Your task to perform on an android device: toggle notification dots Image 0: 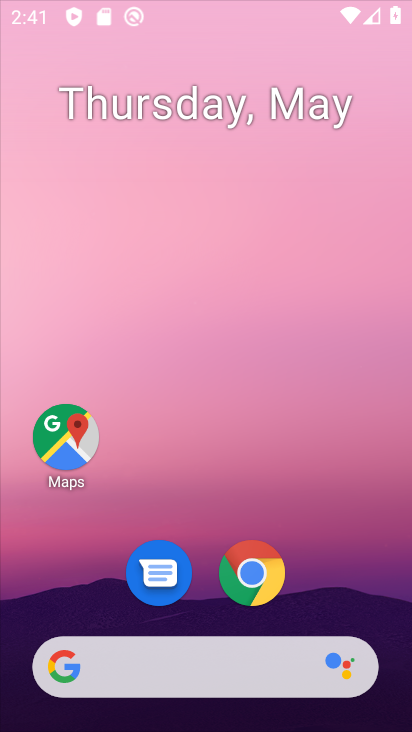
Step 0: click (160, 454)
Your task to perform on an android device: toggle notification dots Image 1: 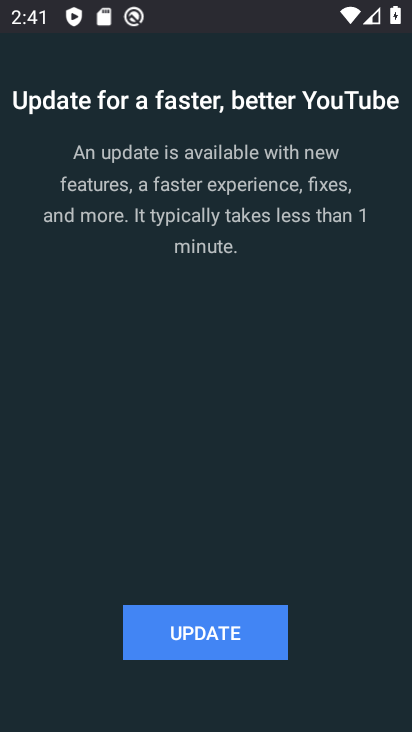
Step 1: press home button
Your task to perform on an android device: toggle notification dots Image 2: 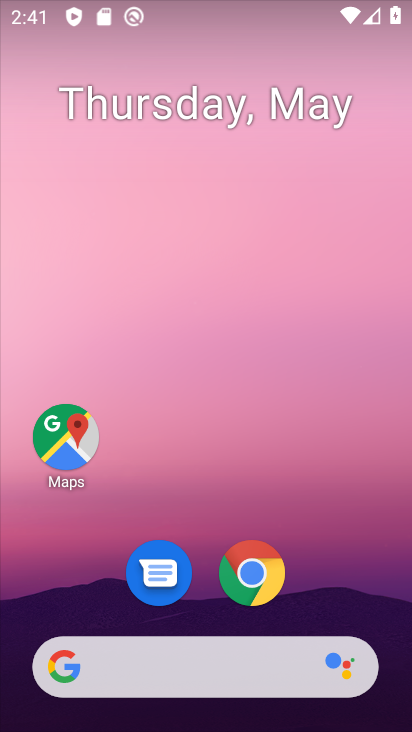
Step 2: drag from (197, 635) to (201, 303)
Your task to perform on an android device: toggle notification dots Image 3: 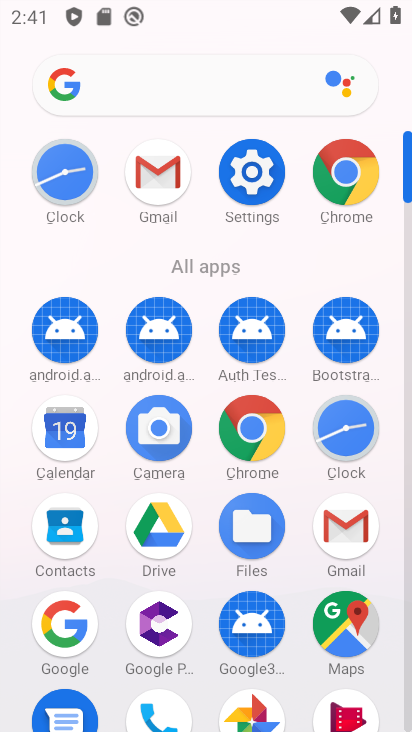
Step 3: click (239, 183)
Your task to perform on an android device: toggle notification dots Image 4: 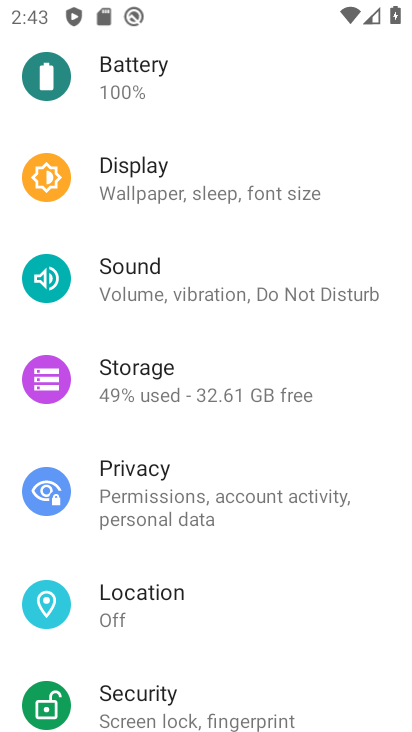
Step 4: drag from (248, 105) to (253, 574)
Your task to perform on an android device: toggle notification dots Image 5: 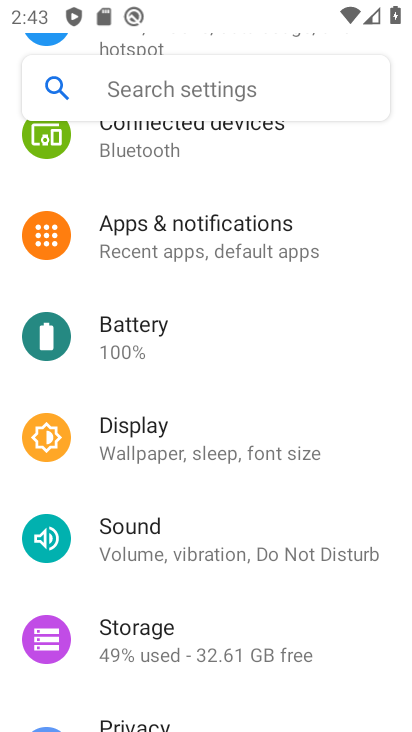
Step 5: click (260, 215)
Your task to perform on an android device: toggle notification dots Image 6: 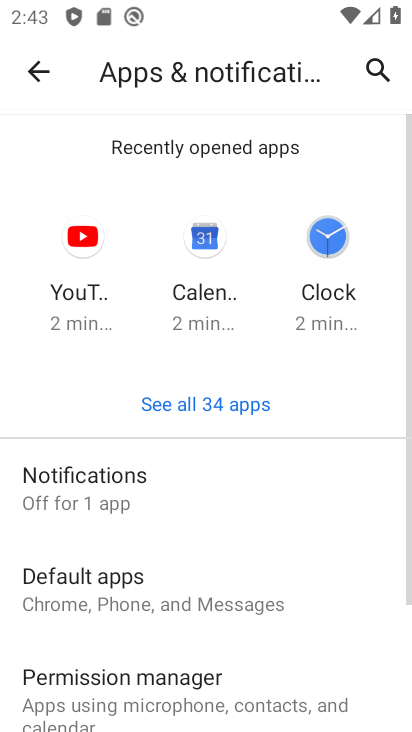
Step 6: click (87, 485)
Your task to perform on an android device: toggle notification dots Image 7: 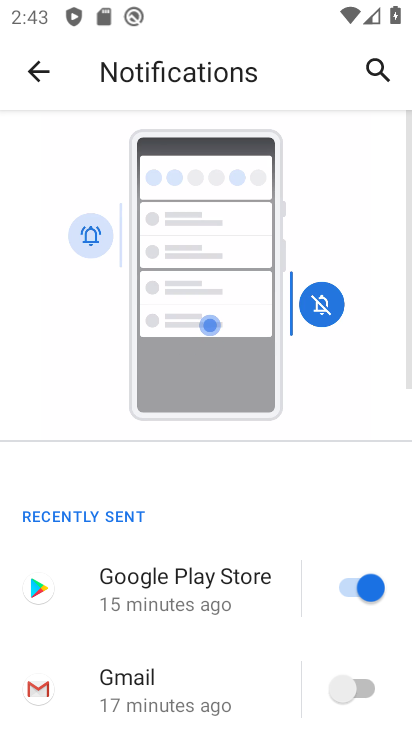
Step 7: drag from (162, 682) to (194, 146)
Your task to perform on an android device: toggle notification dots Image 8: 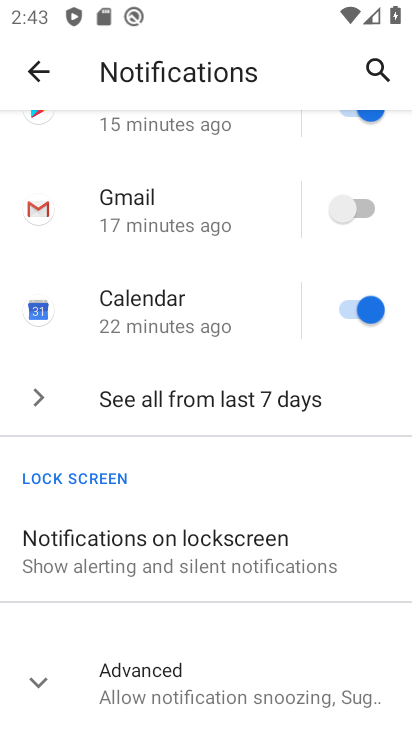
Step 8: click (148, 698)
Your task to perform on an android device: toggle notification dots Image 9: 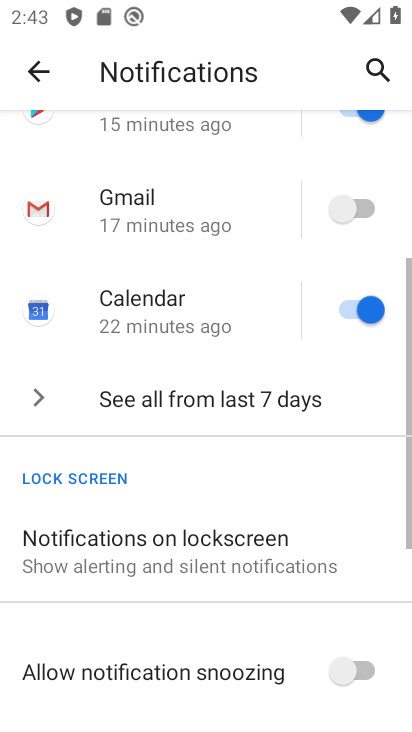
Step 9: drag from (256, 686) to (252, 312)
Your task to perform on an android device: toggle notification dots Image 10: 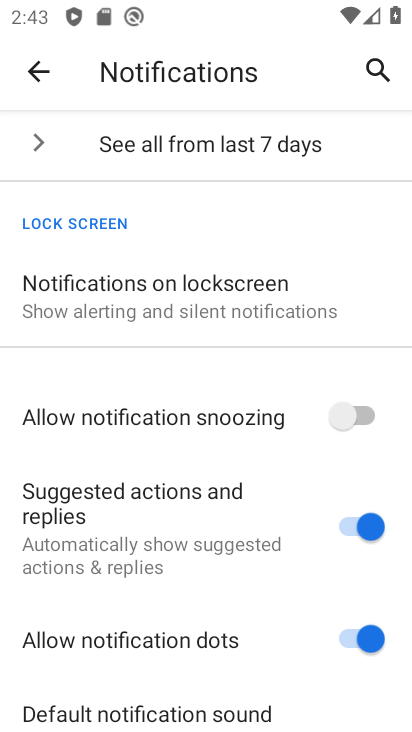
Step 10: drag from (273, 669) to (273, 331)
Your task to perform on an android device: toggle notification dots Image 11: 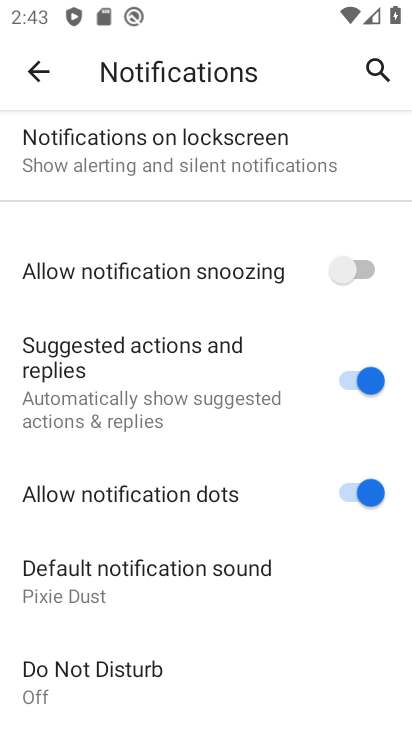
Step 11: click (353, 488)
Your task to perform on an android device: toggle notification dots Image 12: 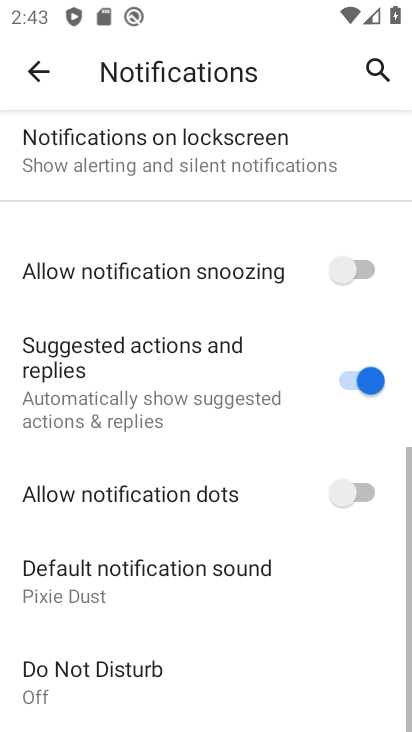
Step 12: task complete